Your task to perform on an android device: toggle wifi Image 0: 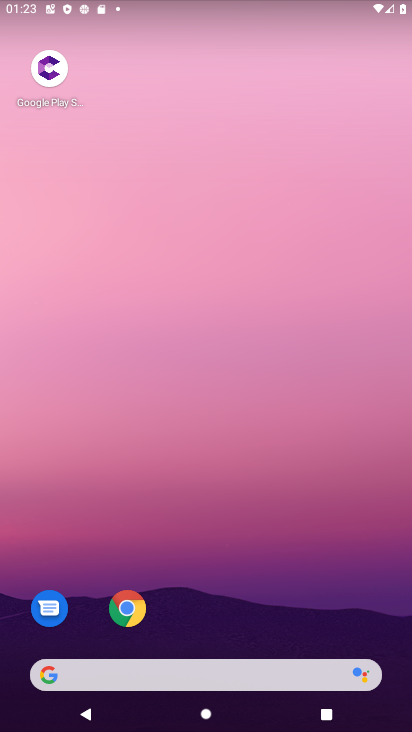
Step 0: drag from (241, 593) to (230, 221)
Your task to perform on an android device: toggle wifi Image 1: 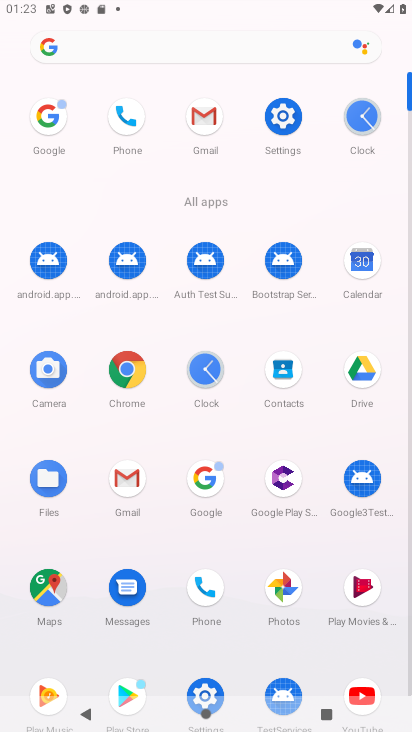
Step 1: drag from (260, 556) to (253, 363)
Your task to perform on an android device: toggle wifi Image 2: 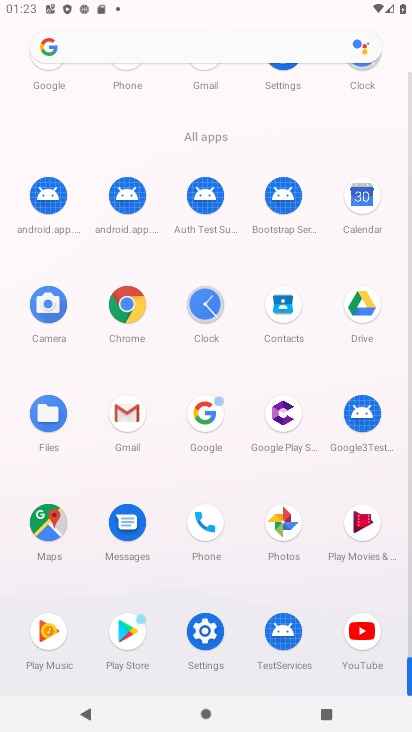
Step 2: click (208, 619)
Your task to perform on an android device: toggle wifi Image 3: 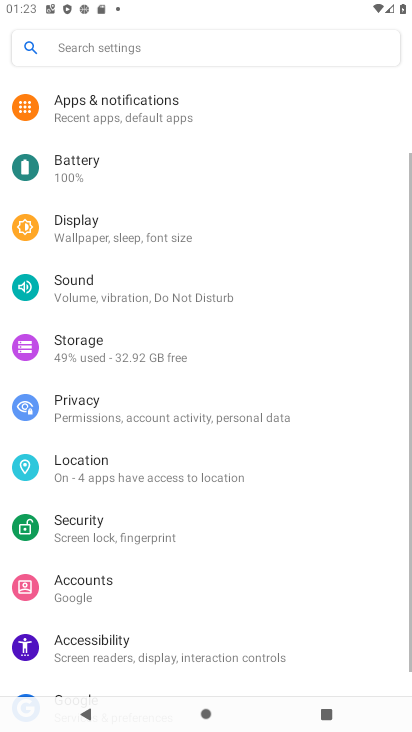
Step 3: drag from (125, 142) to (102, 544)
Your task to perform on an android device: toggle wifi Image 4: 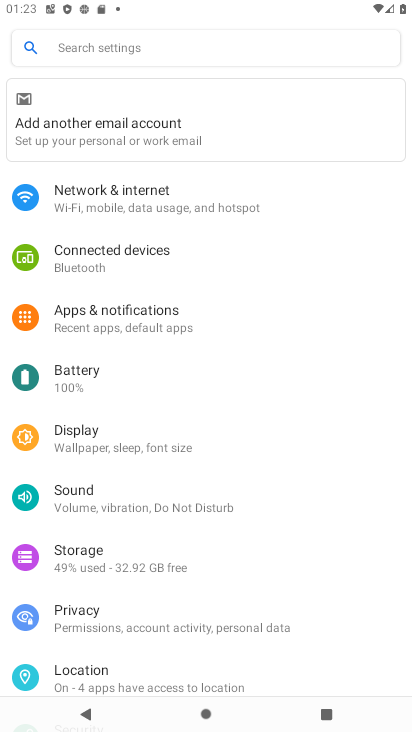
Step 4: click (178, 200)
Your task to perform on an android device: toggle wifi Image 5: 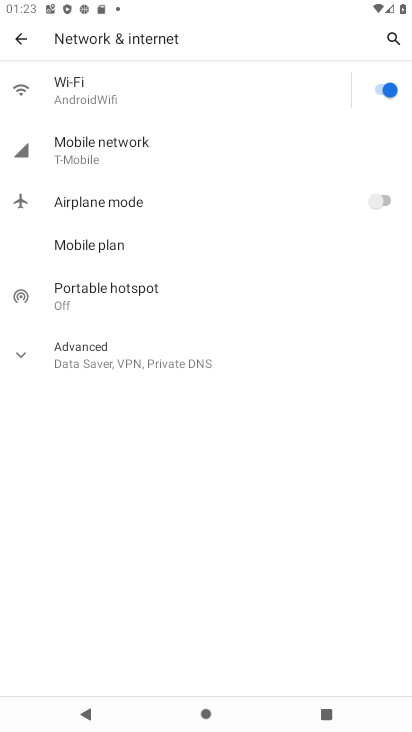
Step 5: click (394, 192)
Your task to perform on an android device: toggle wifi Image 6: 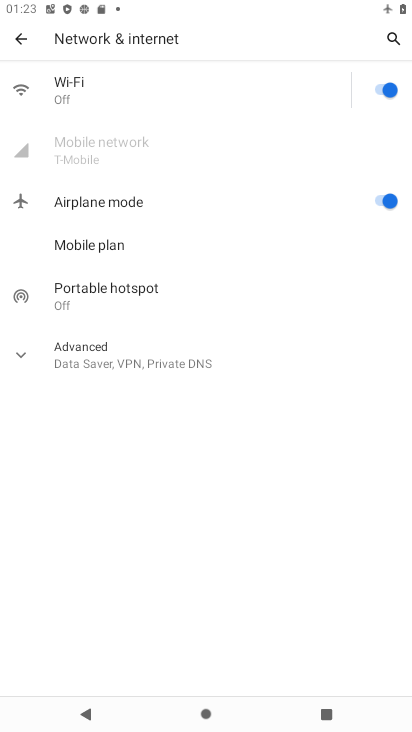
Step 6: click (379, 194)
Your task to perform on an android device: toggle wifi Image 7: 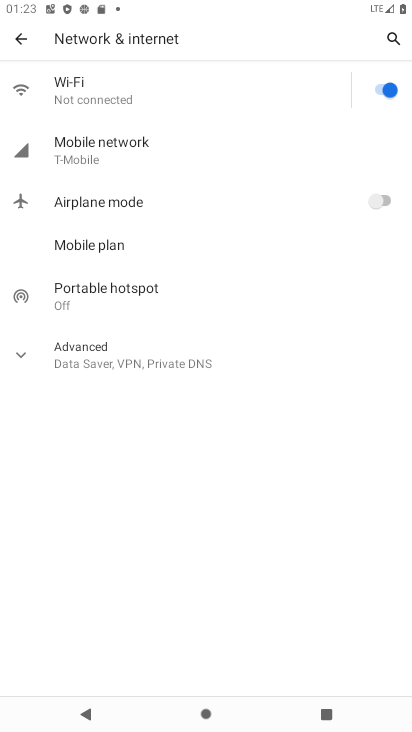
Step 7: click (385, 87)
Your task to perform on an android device: toggle wifi Image 8: 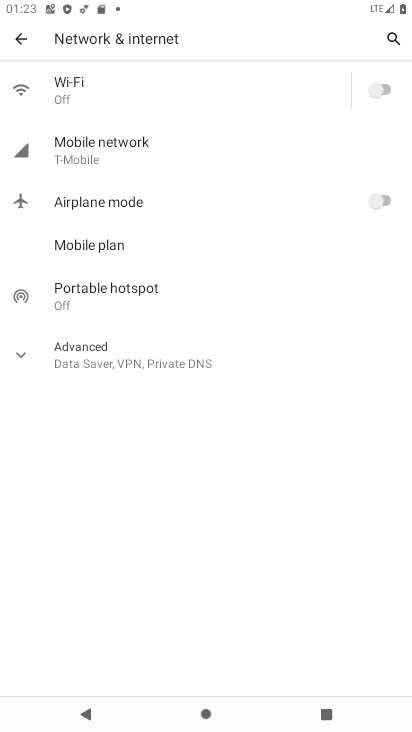
Step 8: task complete